Your task to perform on an android device: uninstall "Messenger Lite" Image 0: 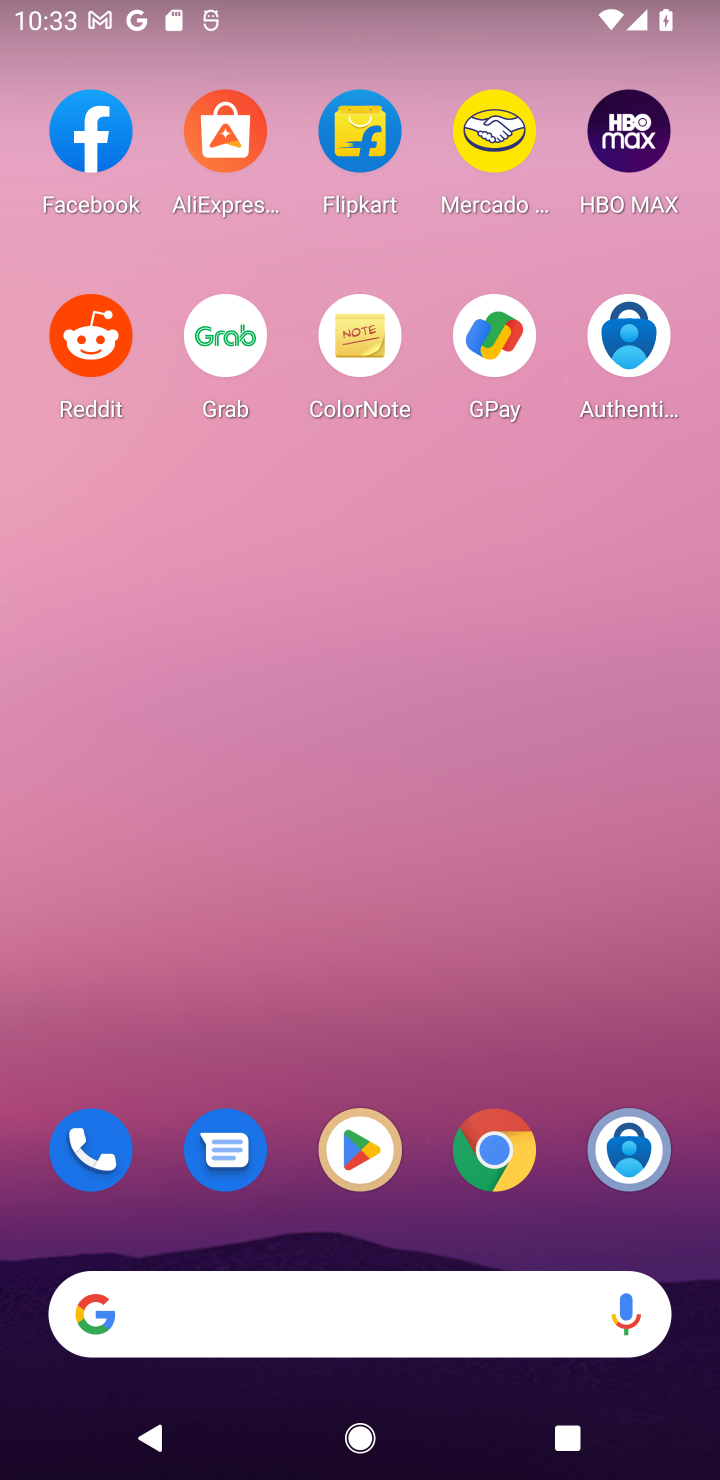
Step 0: click (359, 1126)
Your task to perform on an android device: uninstall "Messenger Lite" Image 1: 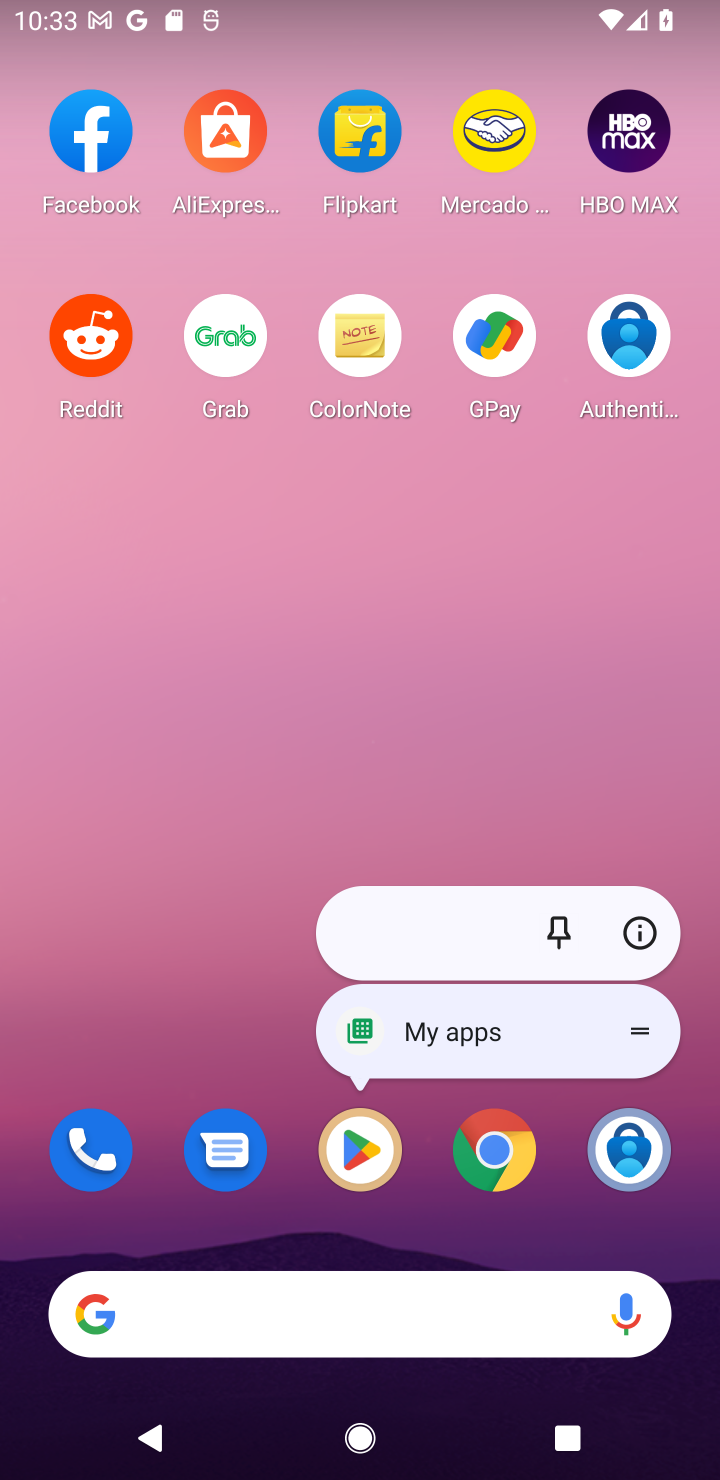
Step 1: click (368, 1122)
Your task to perform on an android device: uninstall "Messenger Lite" Image 2: 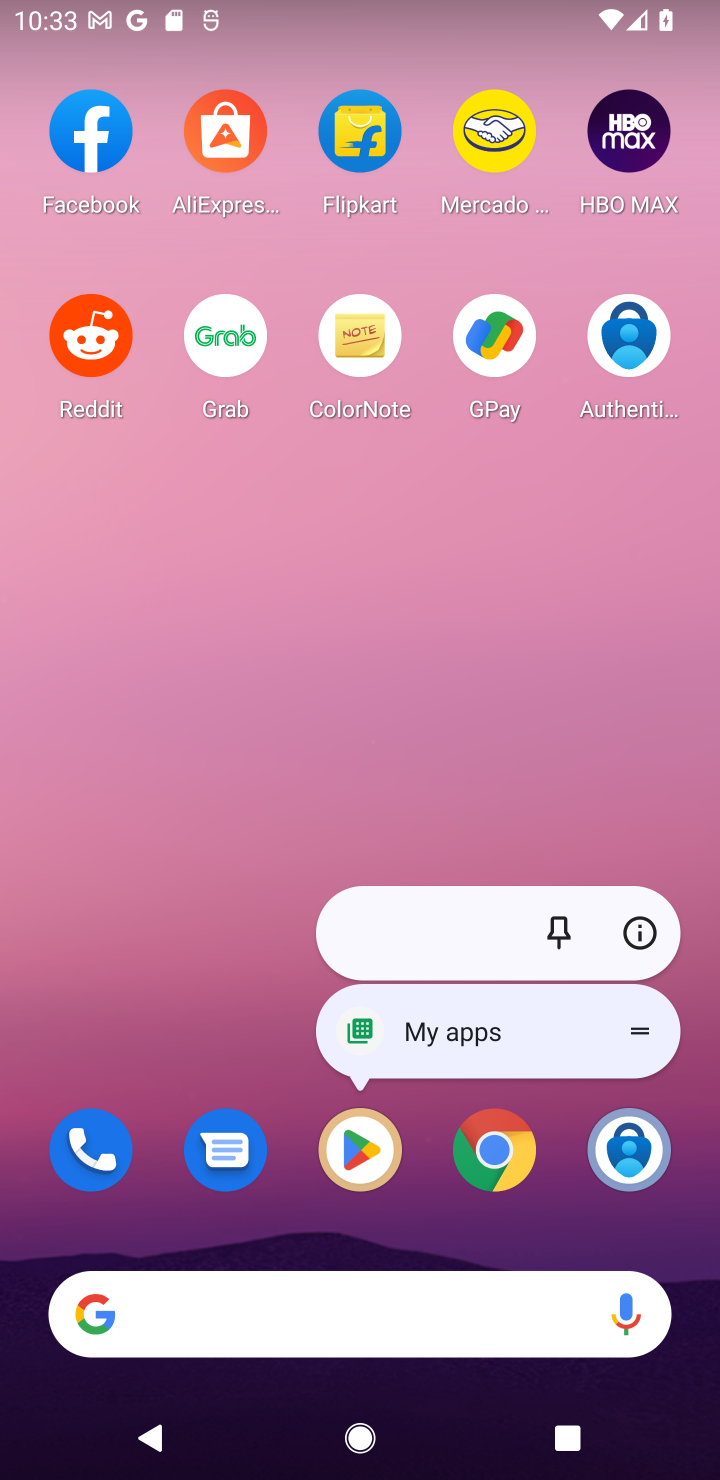
Step 2: click (368, 1133)
Your task to perform on an android device: uninstall "Messenger Lite" Image 3: 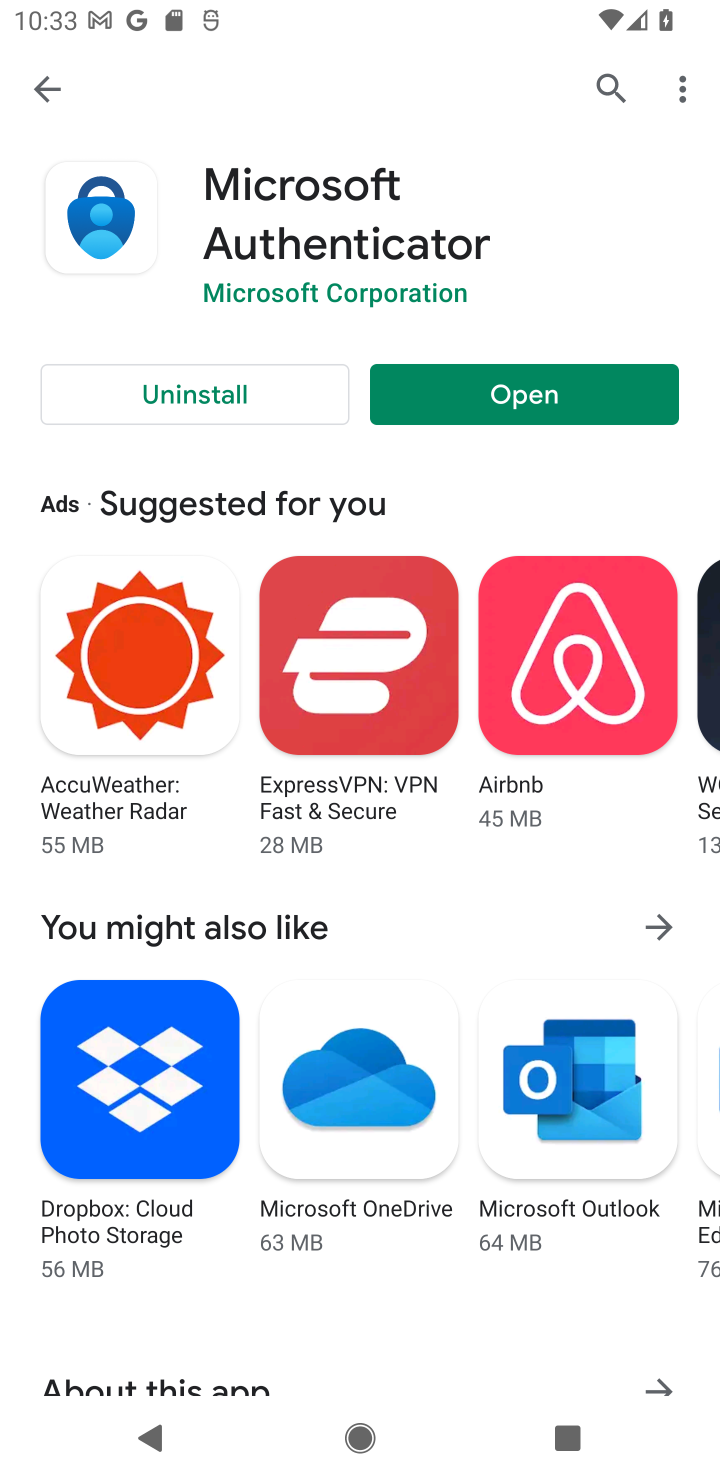
Step 3: click (624, 86)
Your task to perform on an android device: uninstall "Messenger Lite" Image 4: 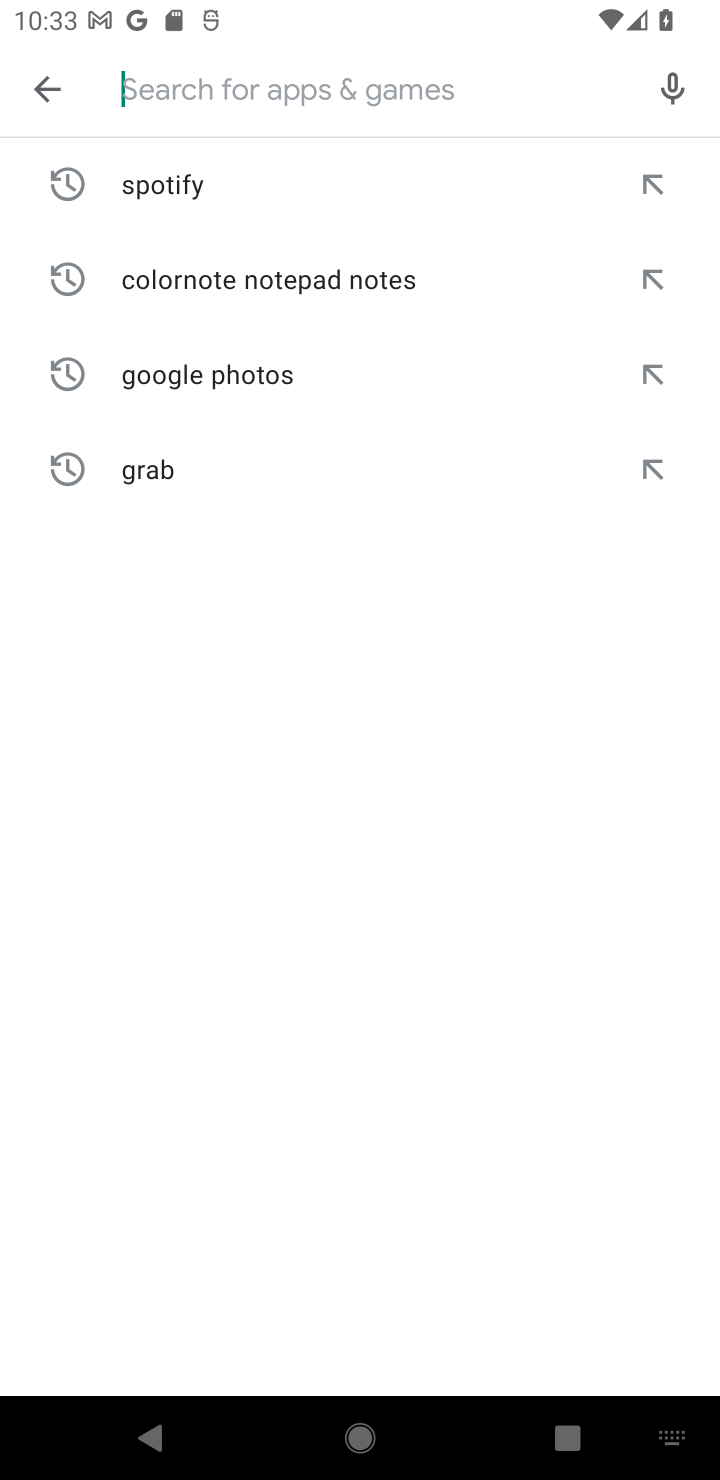
Step 4: type "Messenger Lite"
Your task to perform on an android device: uninstall "Messenger Lite" Image 5: 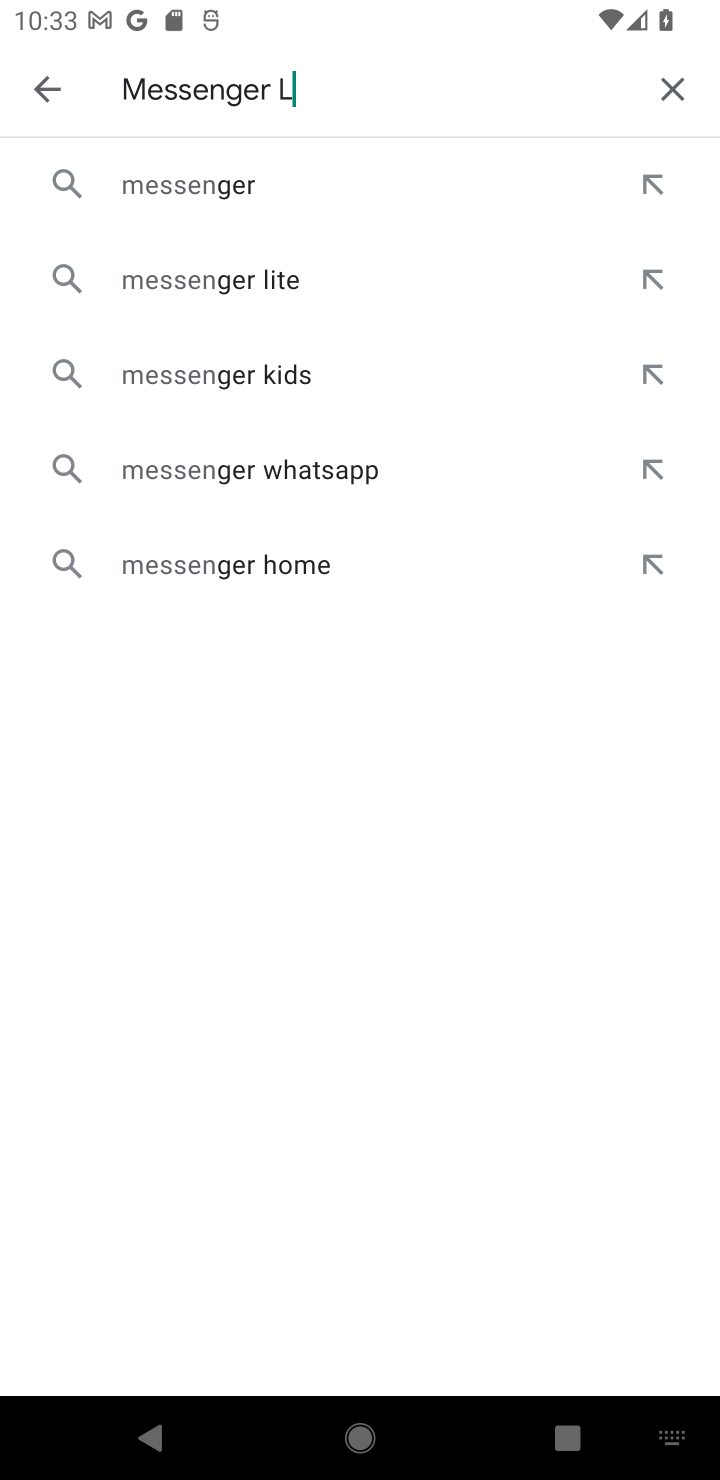
Step 5: type ""
Your task to perform on an android device: uninstall "Messenger Lite" Image 6: 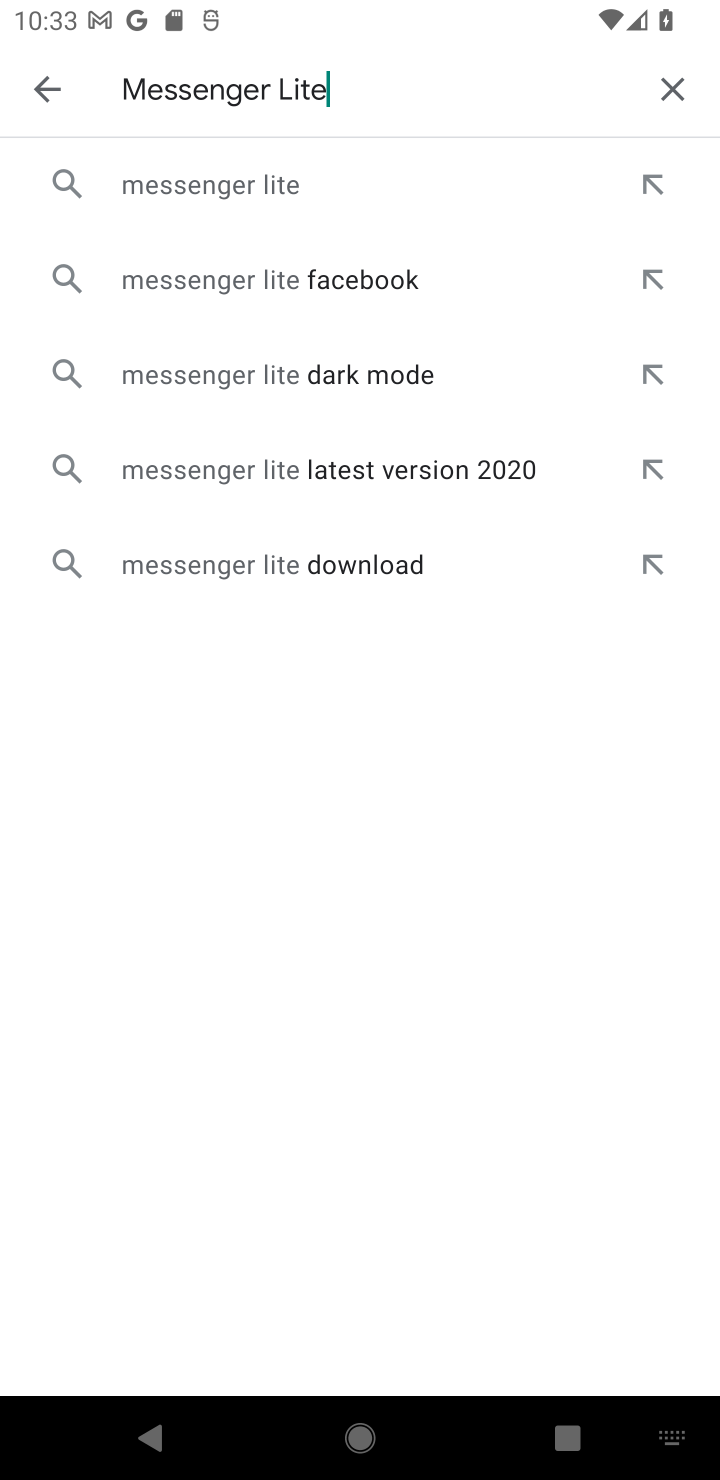
Step 6: click (265, 185)
Your task to perform on an android device: uninstall "Messenger Lite" Image 7: 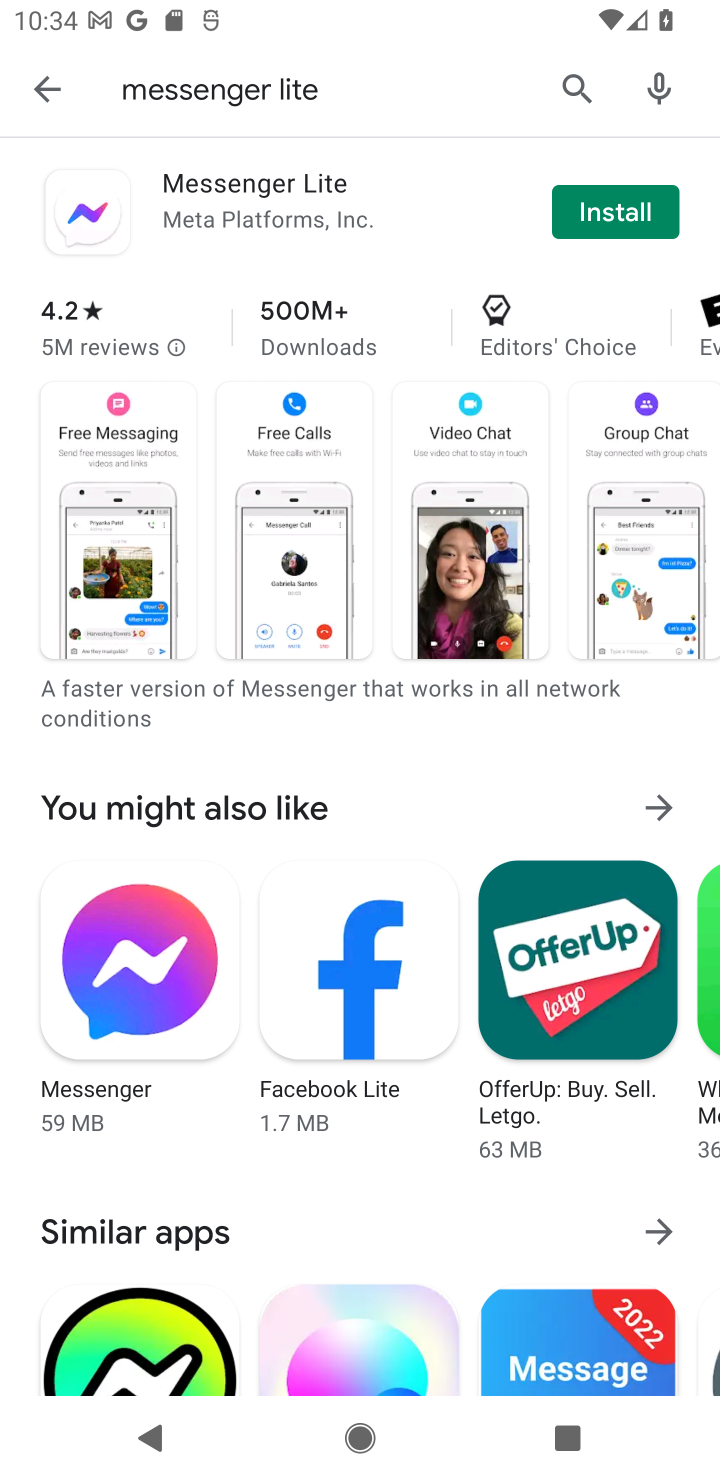
Step 7: task complete